Your task to perform on an android device: change the clock display to digital Image 0: 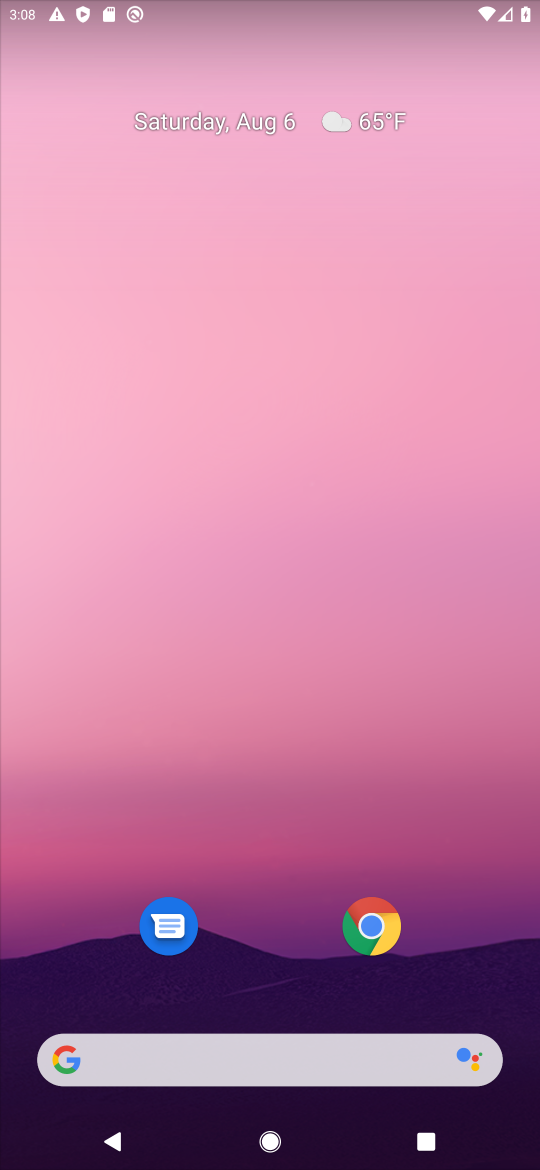
Step 0: drag from (272, 668) to (272, 377)
Your task to perform on an android device: change the clock display to digital Image 1: 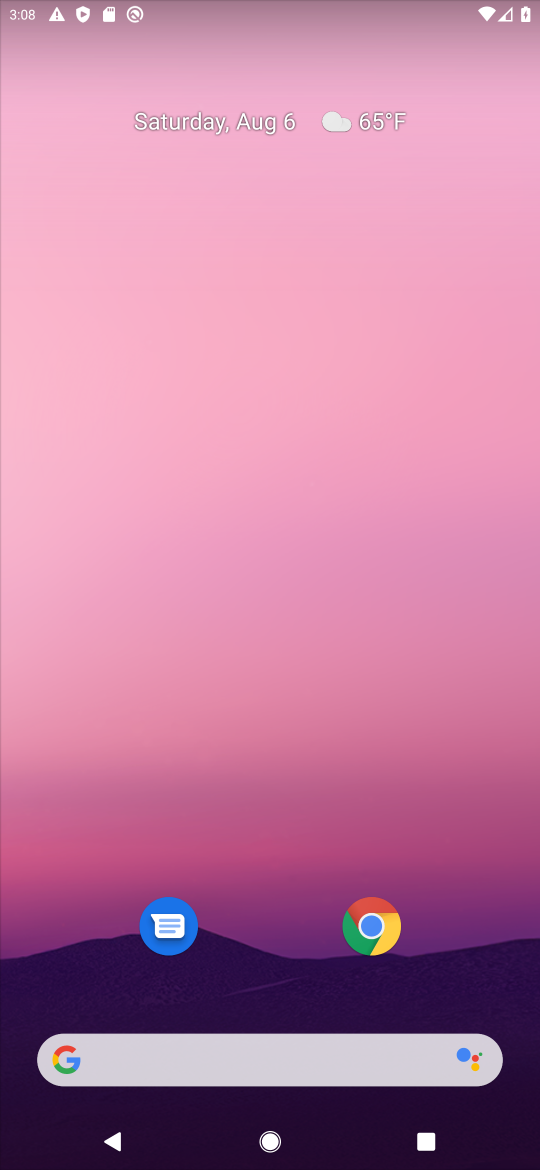
Step 1: drag from (245, 884) to (257, 274)
Your task to perform on an android device: change the clock display to digital Image 2: 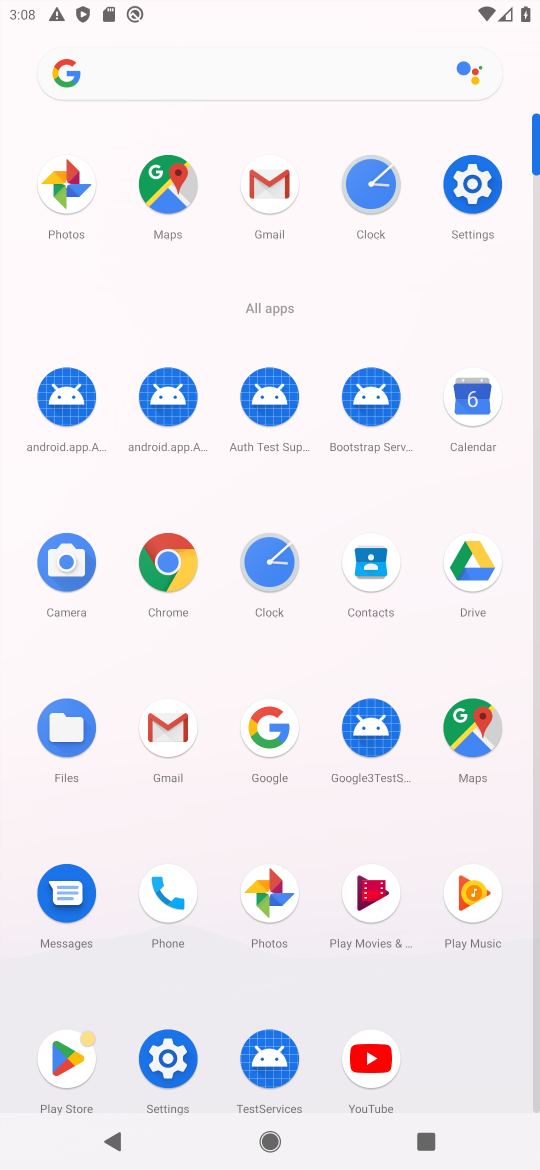
Step 2: click (380, 200)
Your task to perform on an android device: change the clock display to digital Image 3: 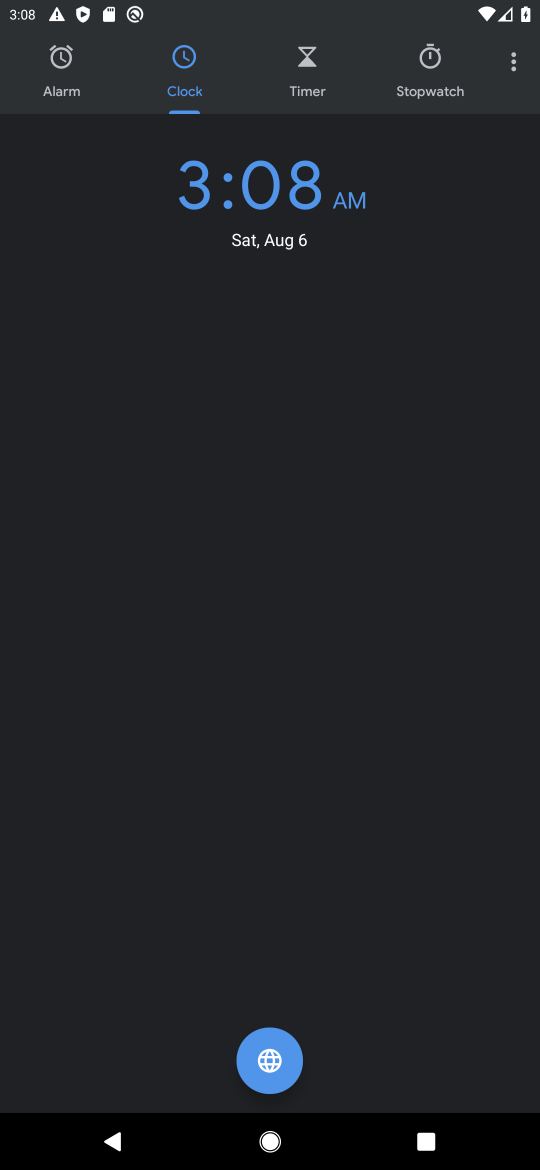
Step 3: click (499, 74)
Your task to perform on an android device: change the clock display to digital Image 4: 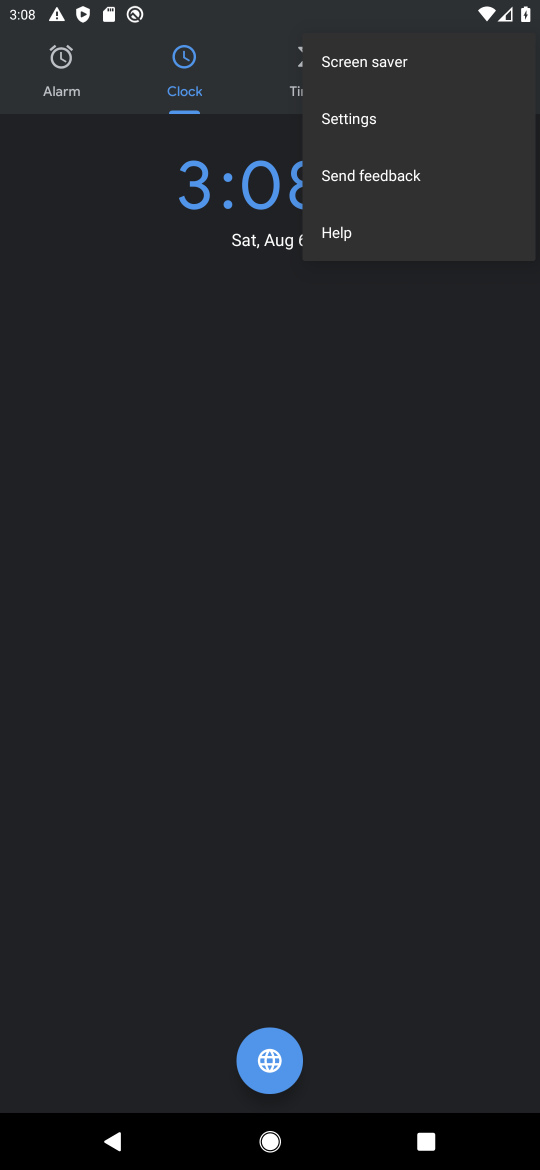
Step 4: click (325, 111)
Your task to perform on an android device: change the clock display to digital Image 5: 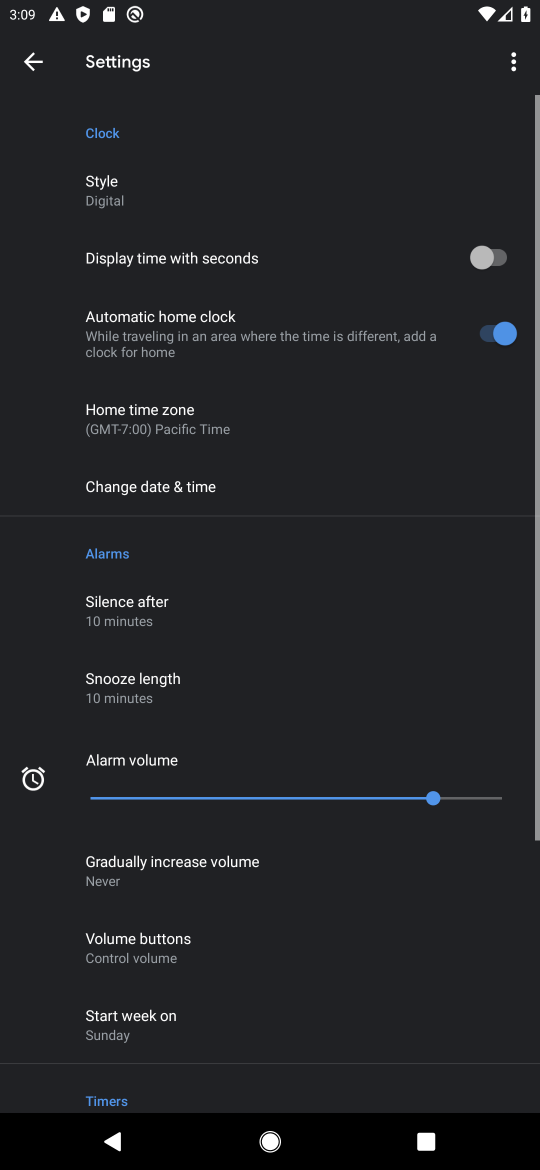
Step 5: click (157, 176)
Your task to perform on an android device: change the clock display to digital Image 6: 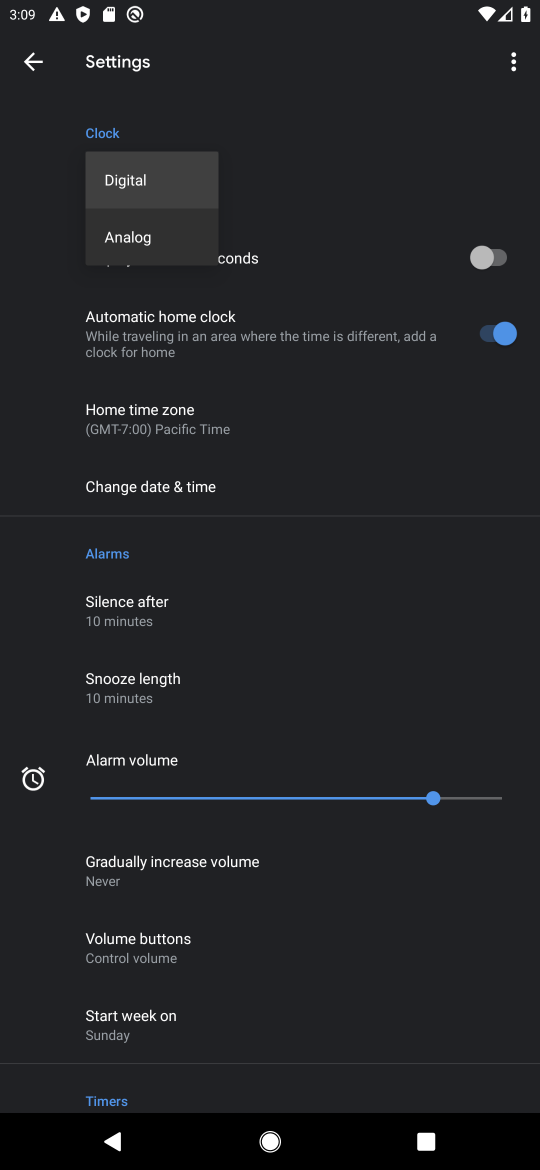
Step 6: task complete